Your task to perform on an android device: turn on bluetooth scan Image 0: 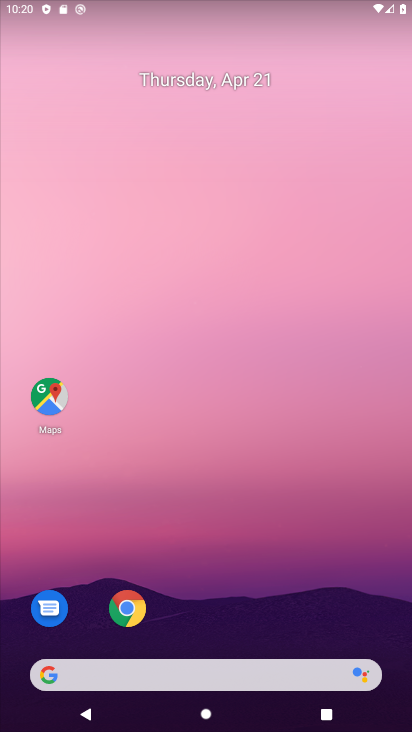
Step 0: drag from (246, 455) to (181, 112)
Your task to perform on an android device: turn on bluetooth scan Image 1: 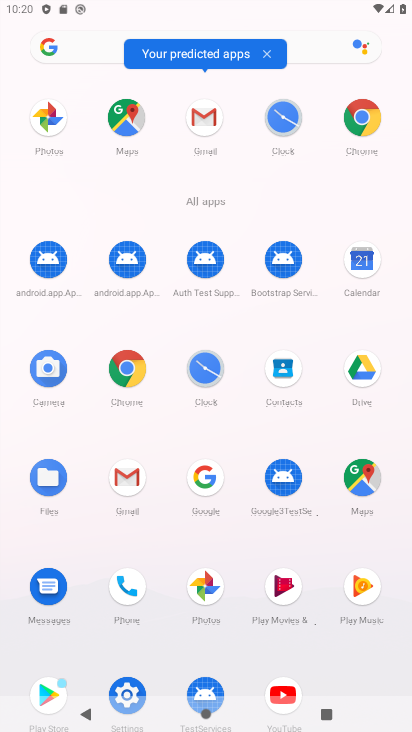
Step 1: click (128, 681)
Your task to perform on an android device: turn on bluetooth scan Image 2: 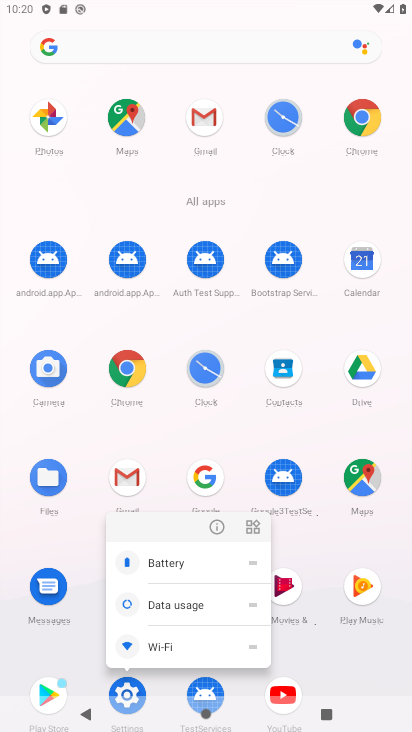
Step 2: click (131, 681)
Your task to perform on an android device: turn on bluetooth scan Image 3: 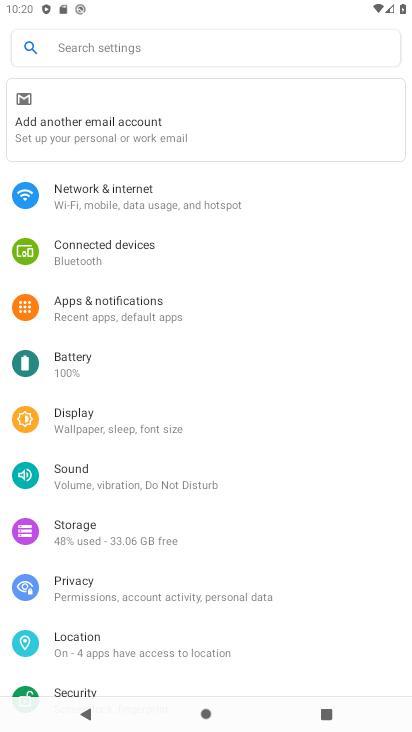
Step 3: click (85, 646)
Your task to perform on an android device: turn on bluetooth scan Image 4: 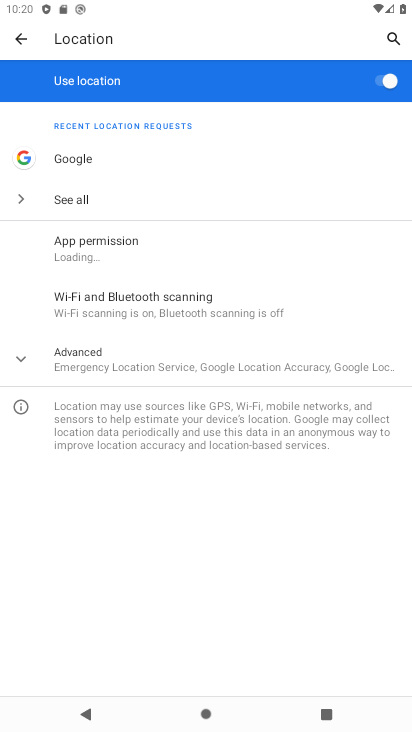
Step 4: click (169, 311)
Your task to perform on an android device: turn on bluetooth scan Image 5: 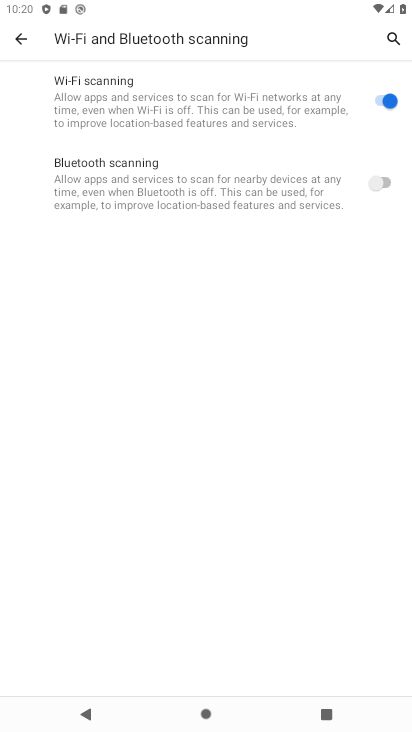
Step 5: click (386, 181)
Your task to perform on an android device: turn on bluetooth scan Image 6: 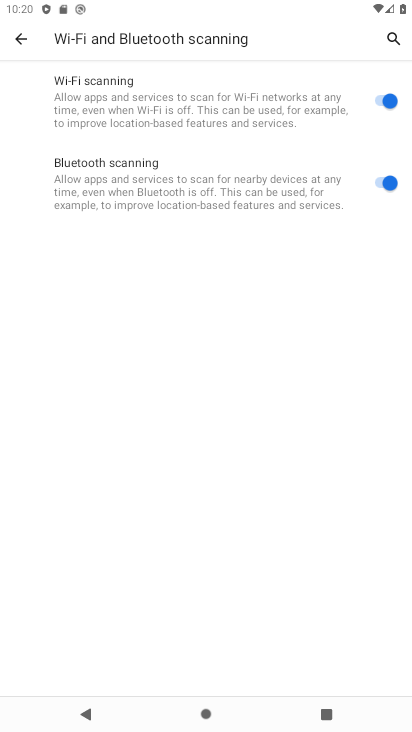
Step 6: task complete